Your task to perform on an android device: empty trash in google photos Image 0: 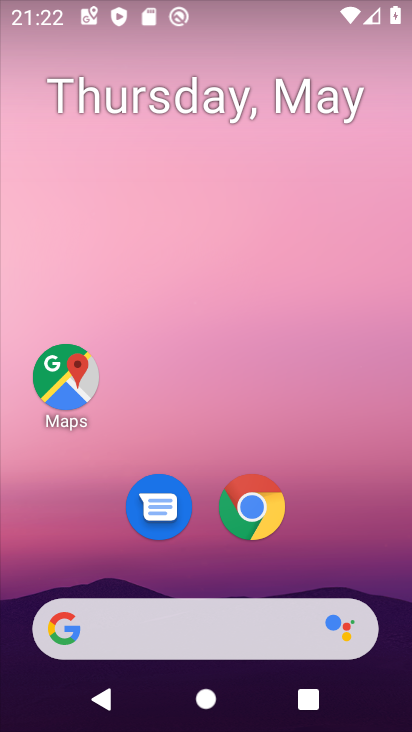
Step 0: press home button
Your task to perform on an android device: empty trash in google photos Image 1: 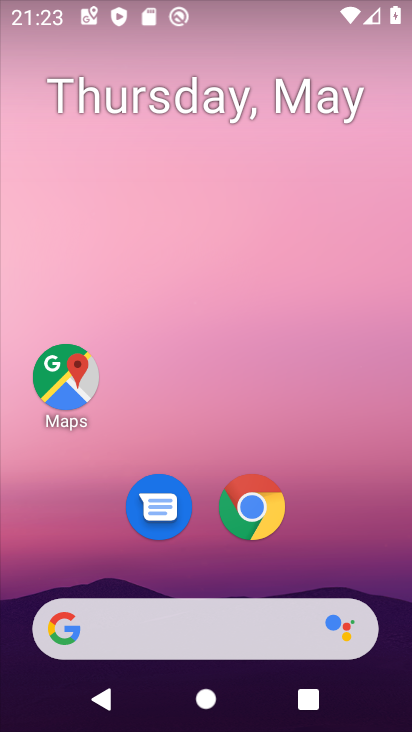
Step 1: drag from (313, 654) to (320, 329)
Your task to perform on an android device: empty trash in google photos Image 2: 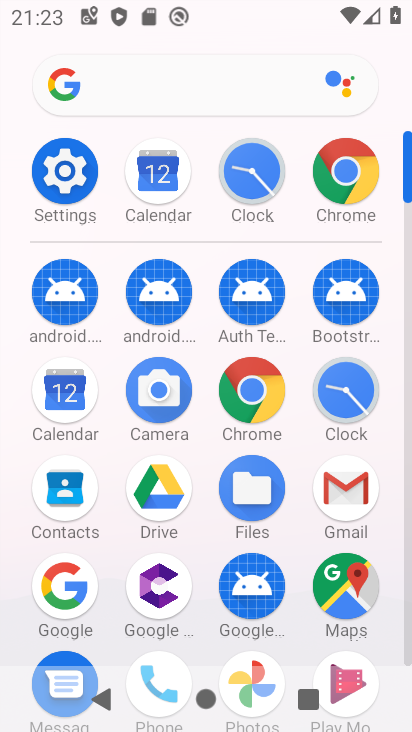
Step 2: click (246, 652)
Your task to perform on an android device: empty trash in google photos Image 3: 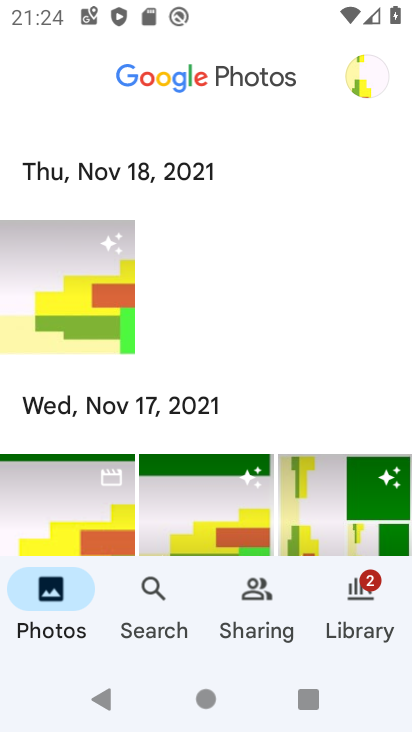
Step 3: click (157, 583)
Your task to perform on an android device: empty trash in google photos Image 4: 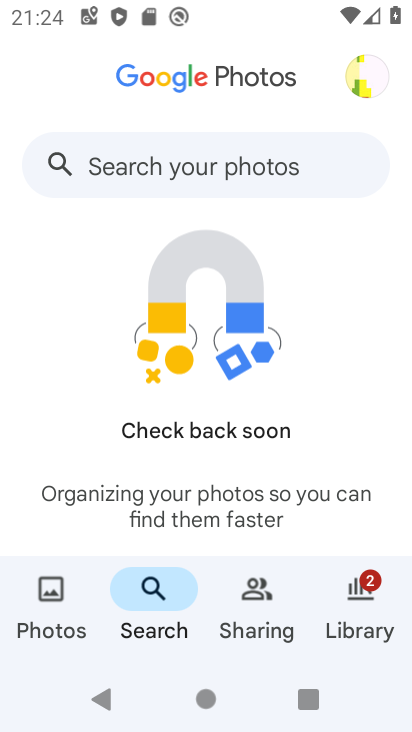
Step 4: click (146, 158)
Your task to perform on an android device: empty trash in google photos Image 5: 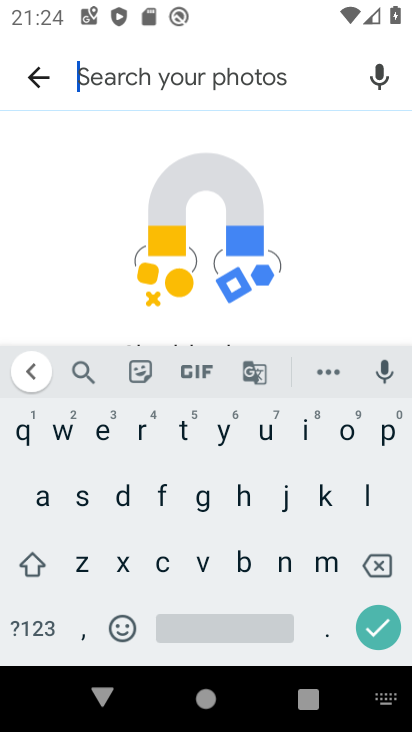
Step 5: click (184, 426)
Your task to perform on an android device: empty trash in google photos Image 6: 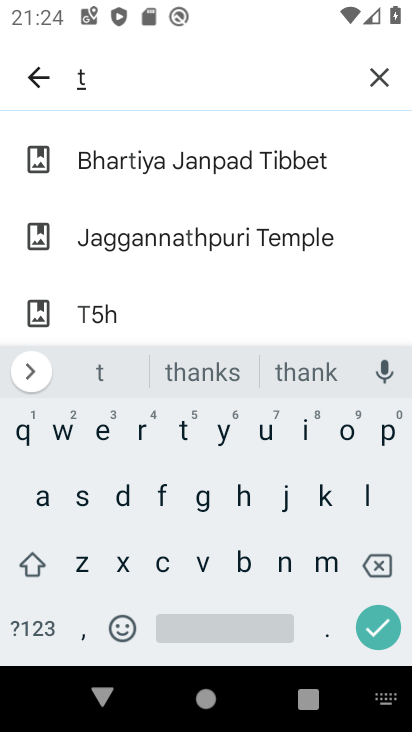
Step 6: click (144, 431)
Your task to perform on an android device: empty trash in google photos Image 7: 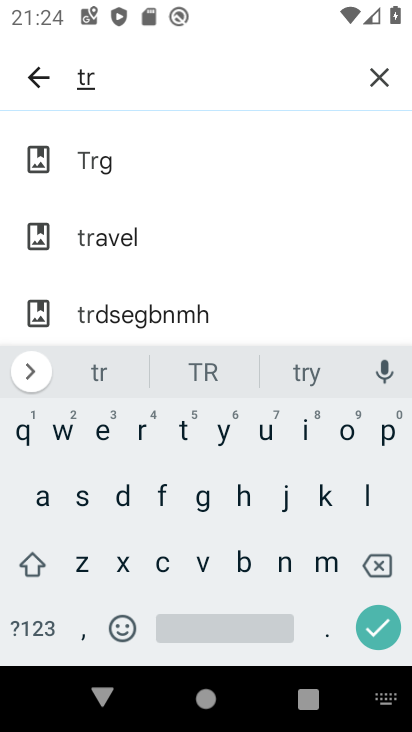
Step 7: click (42, 501)
Your task to perform on an android device: empty trash in google photos Image 8: 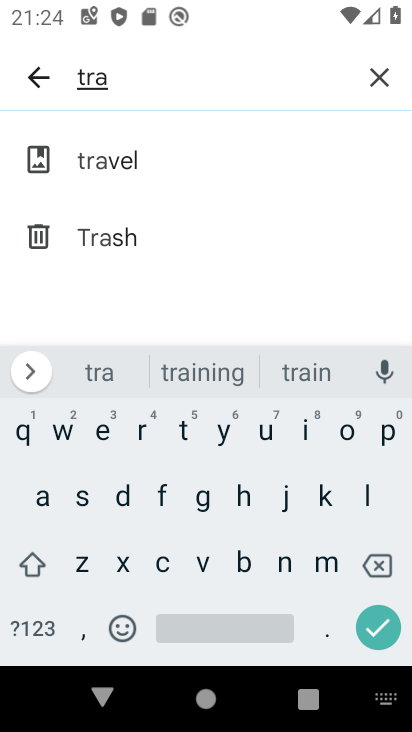
Step 8: click (145, 233)
Your task to perform on an android device: empty trash in google photos Image 9: 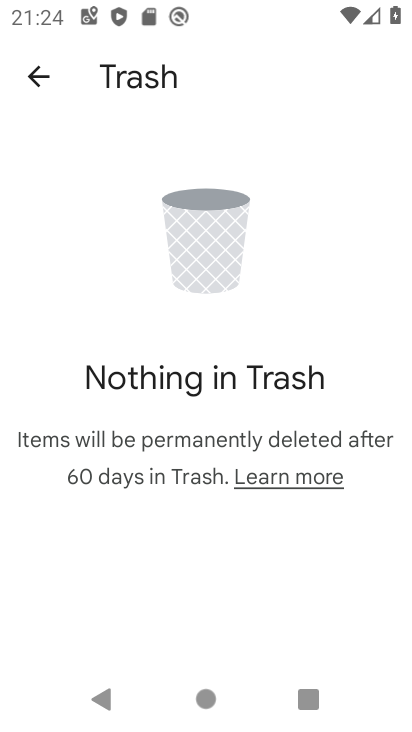
Step 9: task complete